Your task to perform on an android device: Open the web browser Image 0: 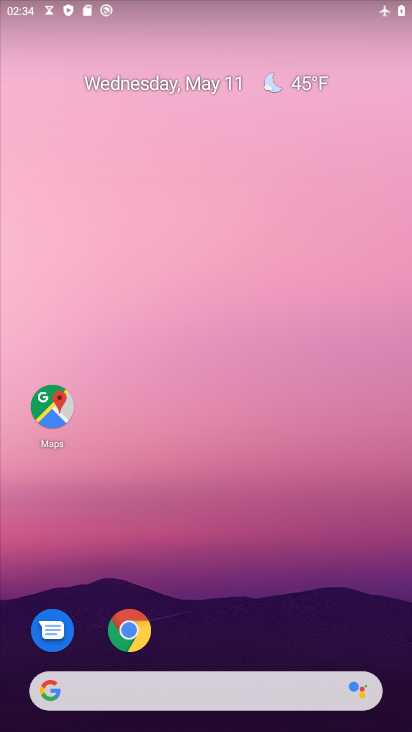
Step 0: click (217, 163)
Your task to perform on an android device: Open the web browser Image 1: 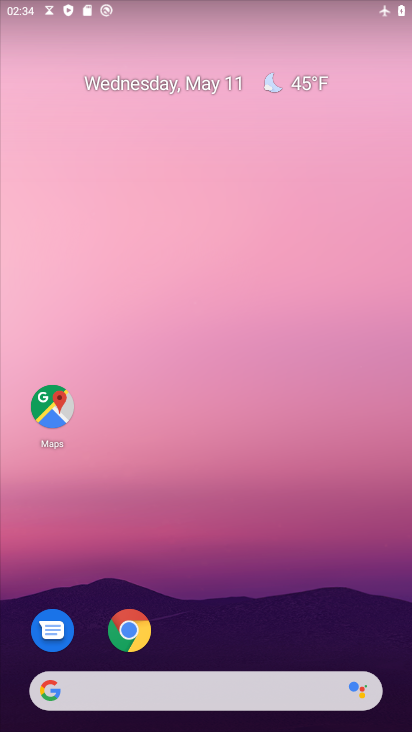
Step 1: click (129, 630)
Your task to perform on an android device: Open the web browser Image 2: 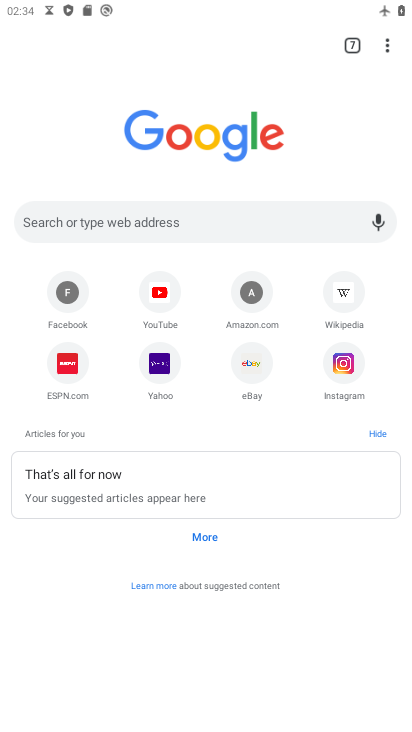
Step 2: task complete